Your task to perform on an android device: Open internet settings Image 0: 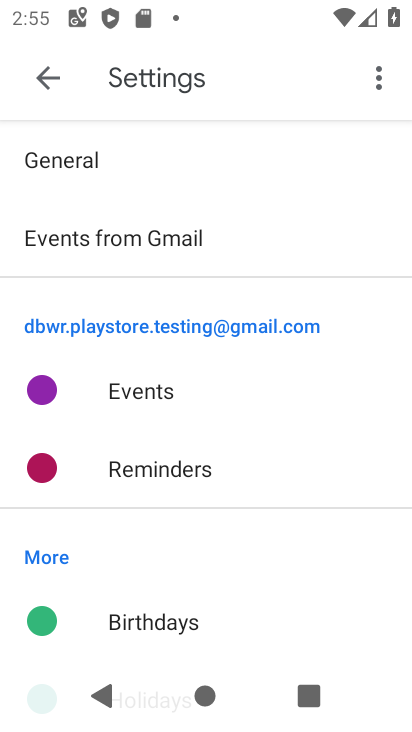
Step 0: press home button
Your task to perform on an android device: Open internet settings Image 1: 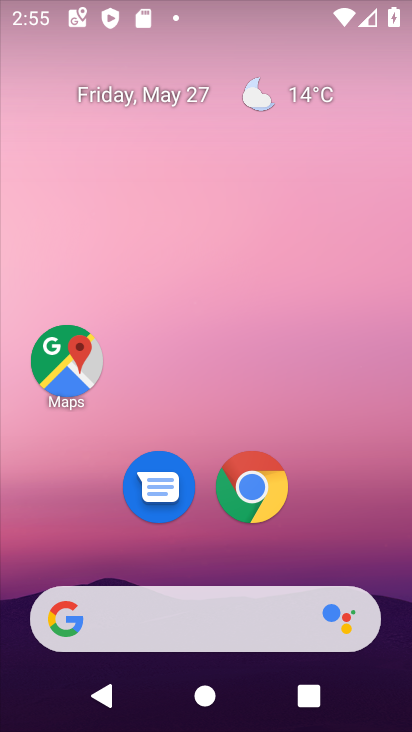
Step 1: drag from (315, 397) to (317, 60)
Your task to perform on an android device: Open internet settings Image 2: 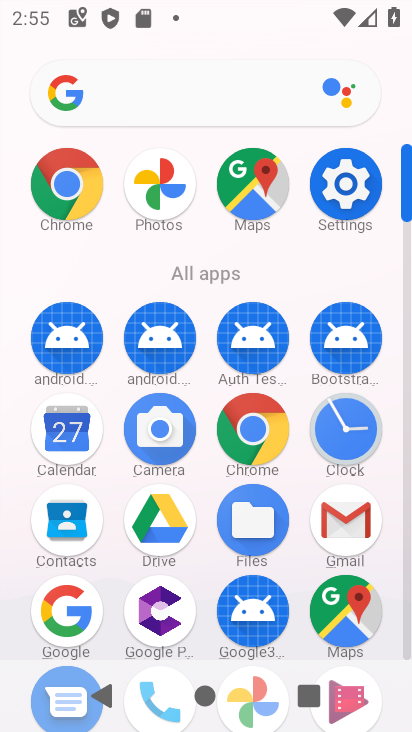
Step 2: click (326, 193)
Your task to perform on an android device: Open internet settings Image 3: 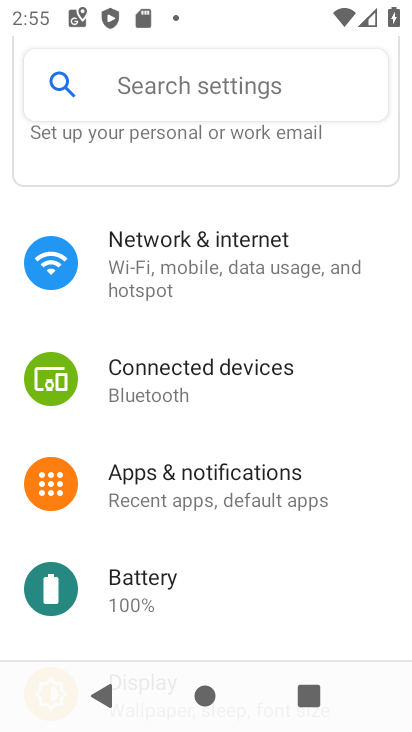
Step 3: click (295, 254)
Your task to perform on an android device: Open internet settings Image 4: 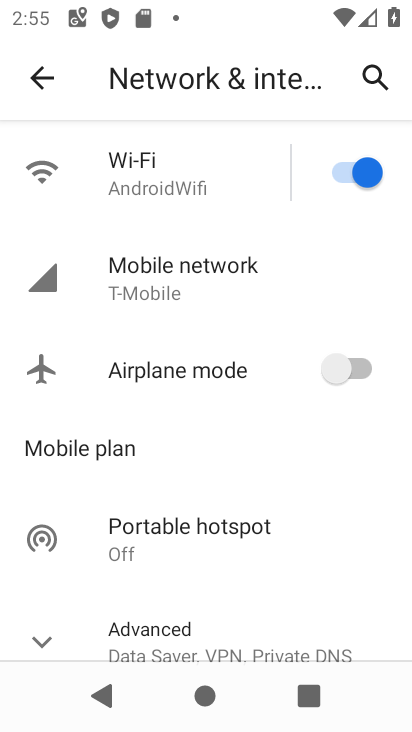
Step 4: task complete